Your task to perform on an android device: Open location settings Image 0: 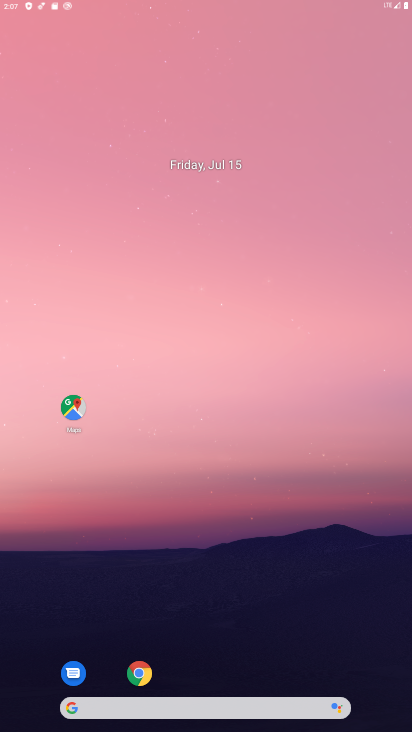
Step 0: click (191, 153)
Your task to perform on an android device: Open location settings Image 1: 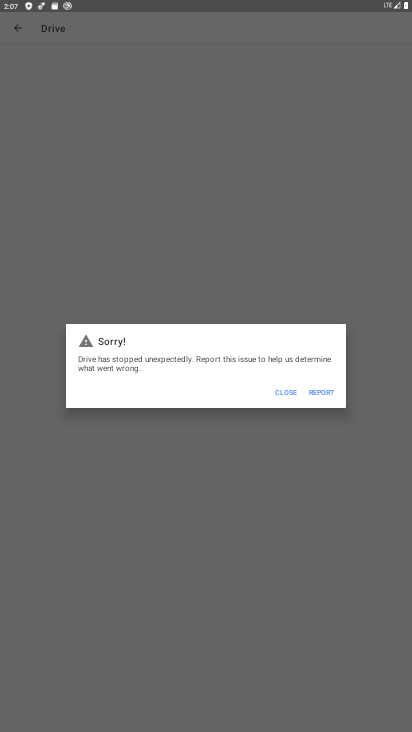
Step 1: press home button
Your task to perform on an android device: Open location settings Image 2: 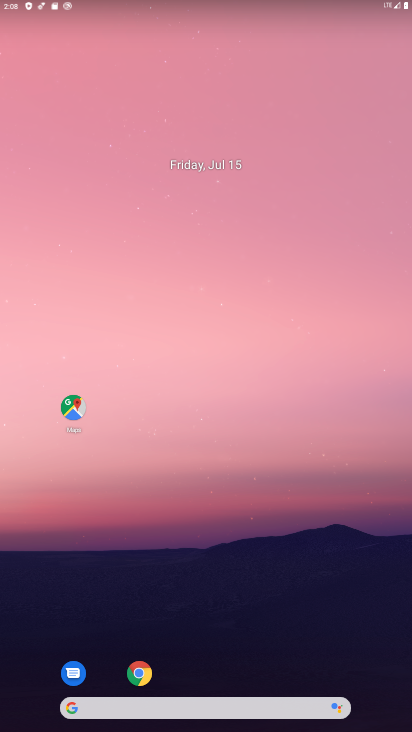
Step 2: drag from (195, 715) to (187, 224)
Your task to perform on an android device: Open location settings Image 3: 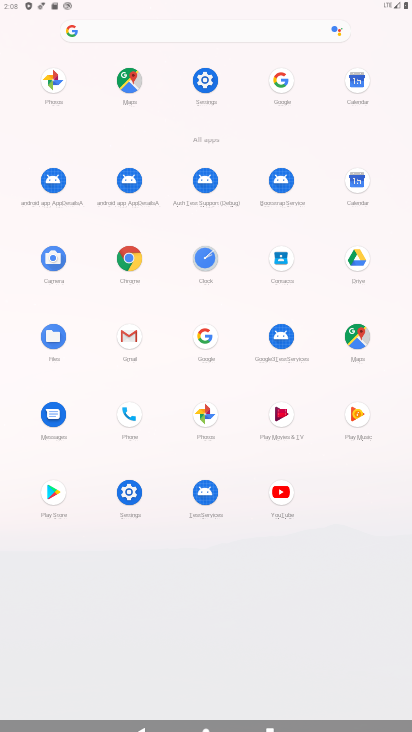
Step 3: click (207, 88)
Your task to perform on an android device: Open location settings Image 4: 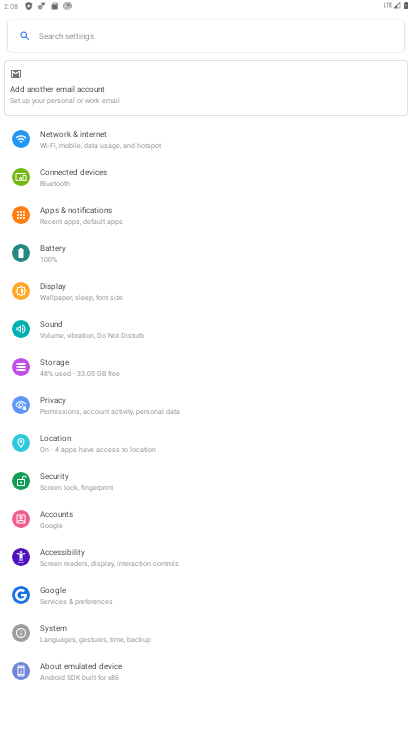
Step 4: click (72, 445)
Your task to perform on an android device: Open location settings Image 5: 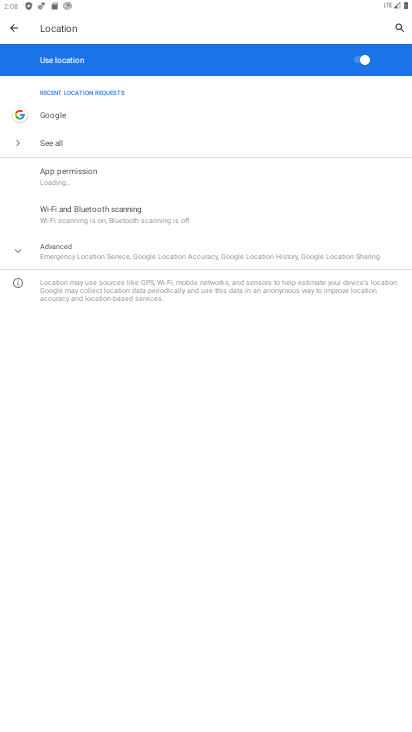
Step 5: click (38, 239)
Your task to perform on an android device: Open location settings Image 6: 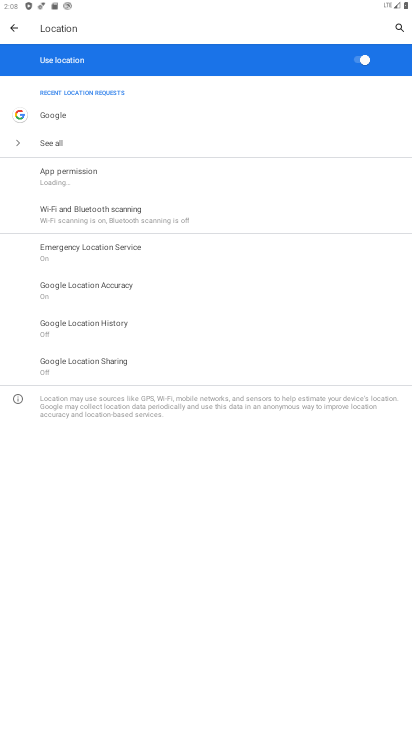
Step 6: task complete